Your task to perform on an android device: check data usage Image 0: 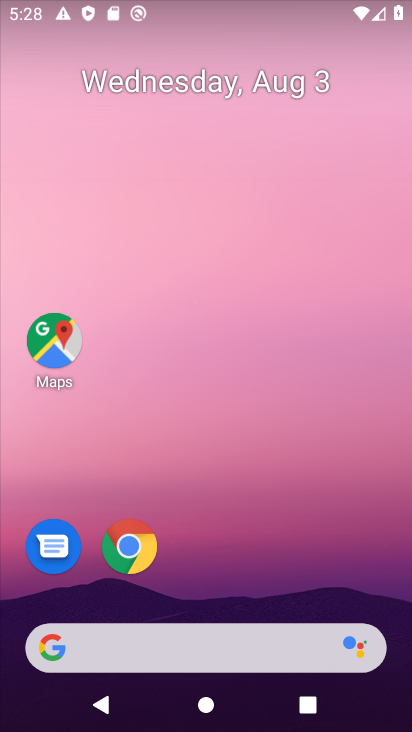
Step 0: drag from (205, 532) to (225, 171)
Your task to perform on an android device: check data usage Image 1: 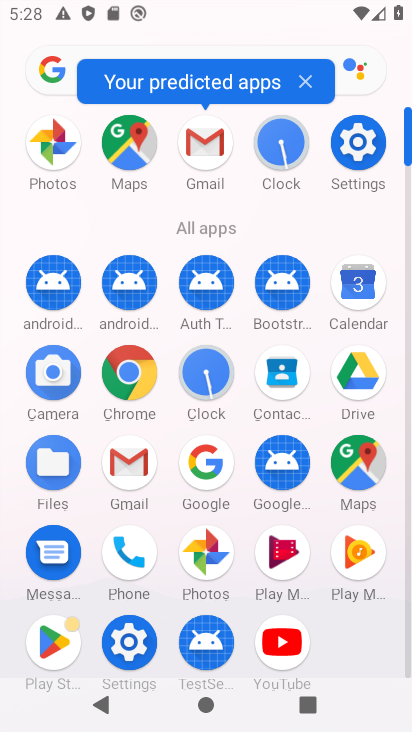
Step 1: click (354, 152)
Your task to perform on an android device: check data usage Image 2: 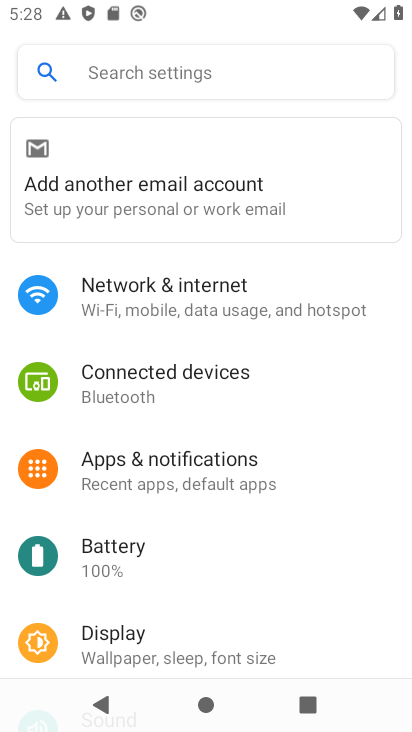
Step 2: click (159, 310)
Your task to perform on an android device: check data usage Image 3: 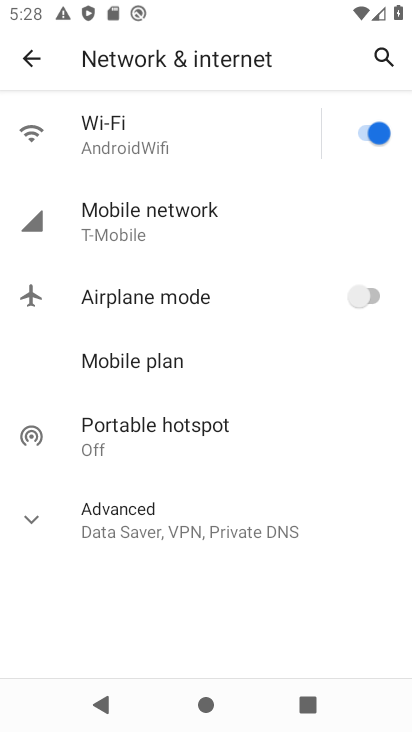
Step 3: click (119, 220)
Your task to perform on an android device: check data usage Image 4: 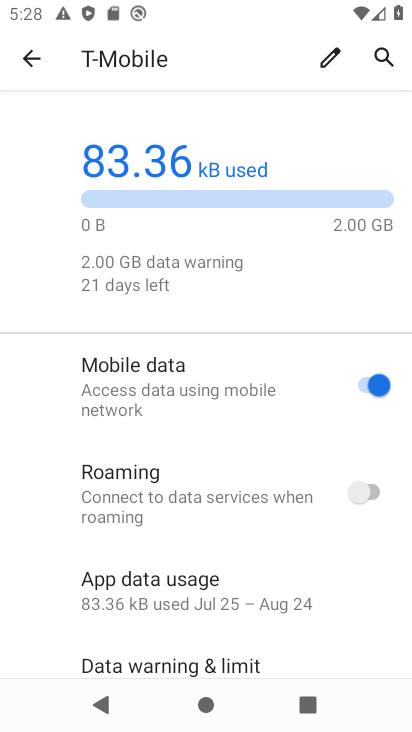
Step 4: click (131, 584)
Your task to perform on an android device: check data usage Image 5: 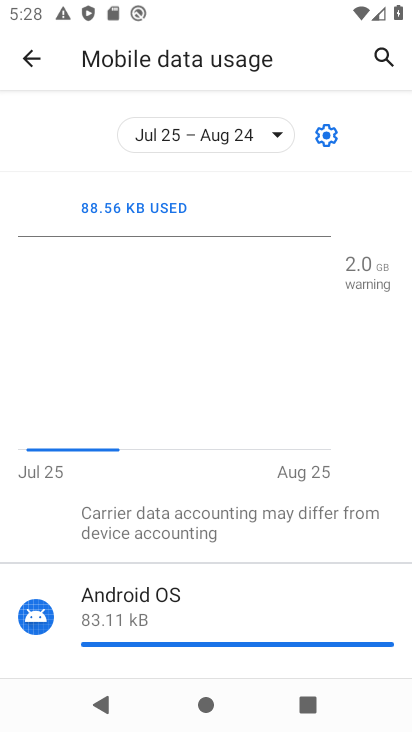
Step 5: task complete